Your task to perform on an android device: Turn off the flashlight Image 0: 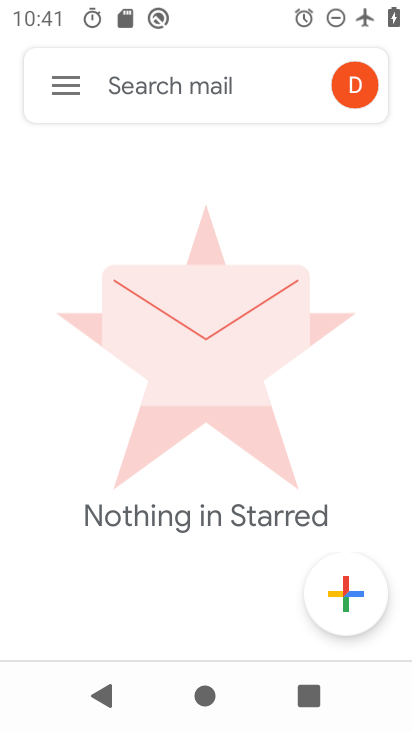
Step 0: press home button
Your task to perform on an android device: Turn off the flashlight Image 1: 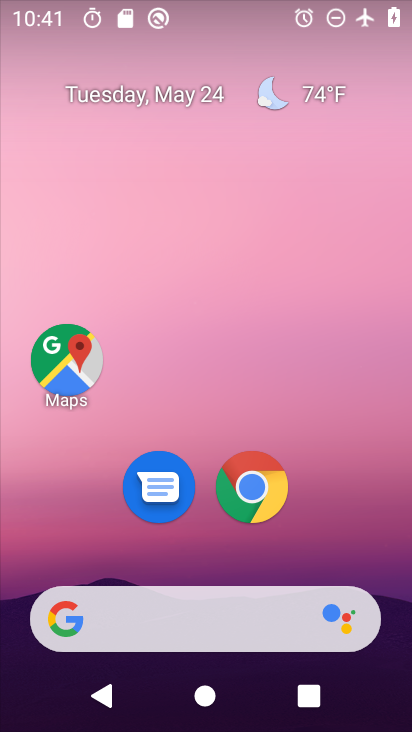
Step 1: task complete